Your task to perform on an android device: toggle notification dots Image 0: 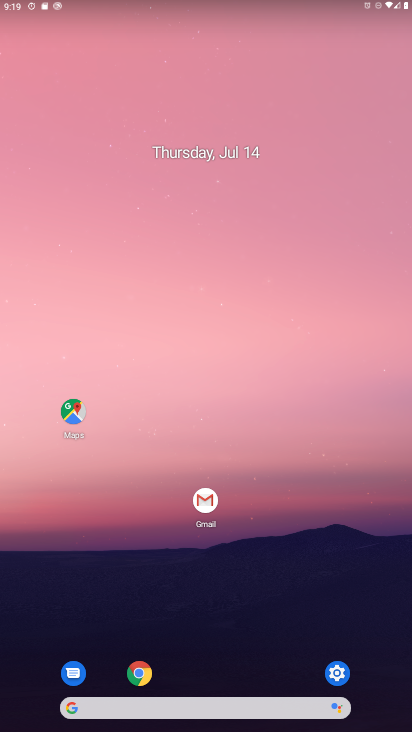
Step 0: press home button
Your task to perform on an android device: toggle notification dots Image 1: 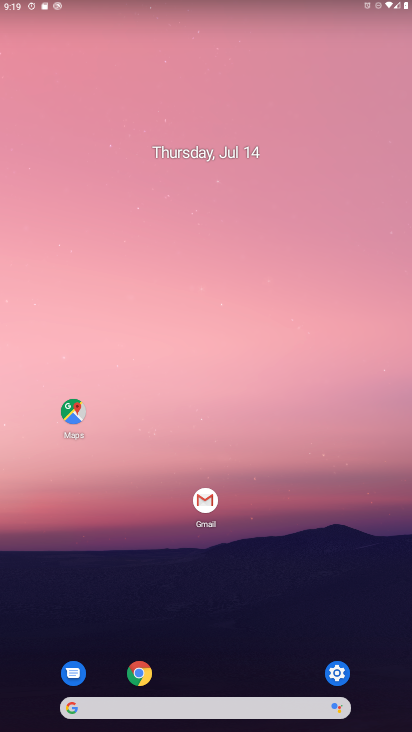
Step 1: click (337, 676)
Your task to perform on an android device: toggle notification dots Image 2: 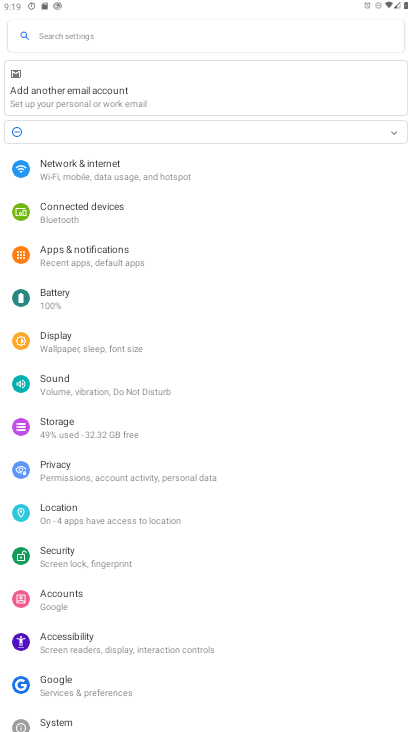
Step 2: click (99, 42)
Your task to perform on an android device: toggle notification dots Image 3: 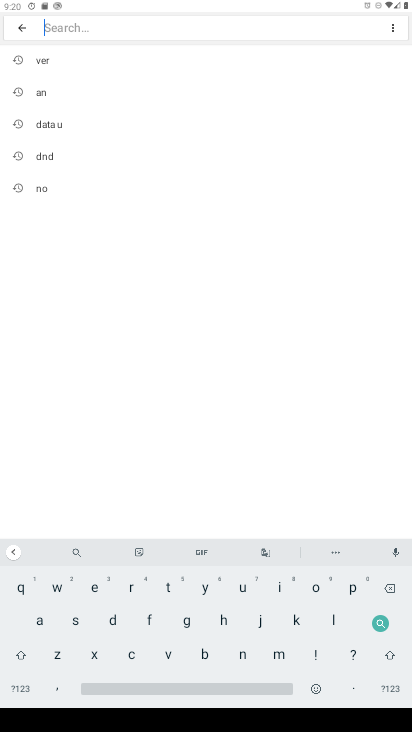
Step 3: click (109, 626)
Your task to perform on an android device: toggle notification dots Image 4: 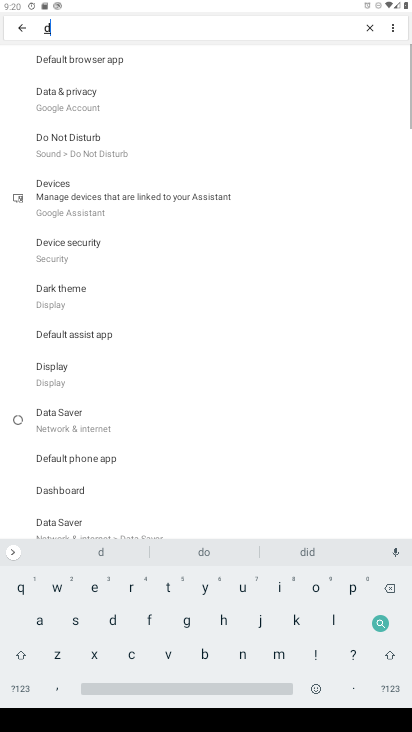
Step 4: click (317, 586)
Your task to perform on an android device: toggle notification dots Image 5: 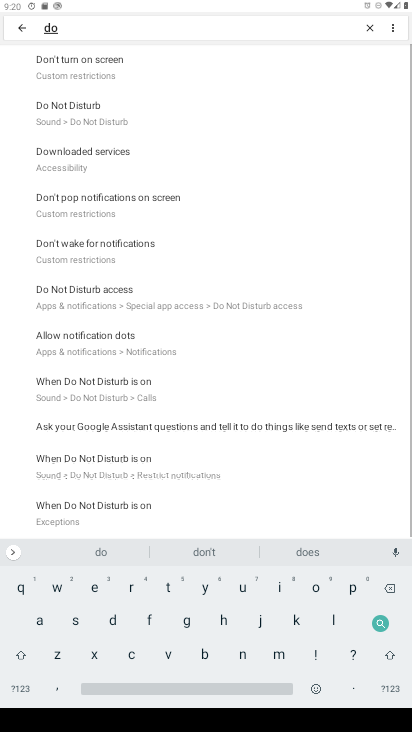
Step 5: click (169, 586)
Your task to perform on an android device: toggle notification dots Image 6: 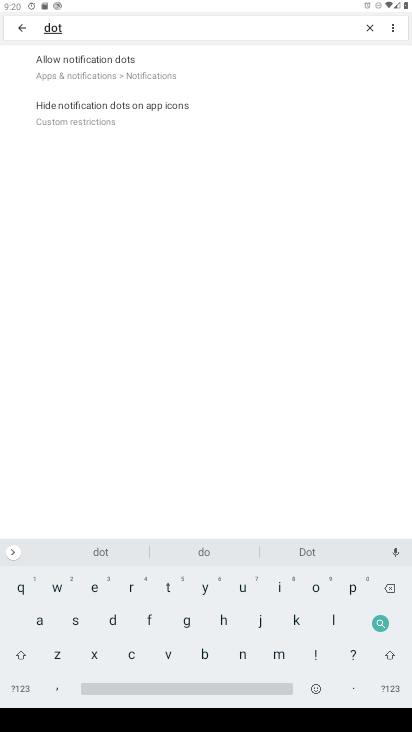
Step 6: click (111, 69)
Your task to perform on an android device: toggle notification dots Image 7: 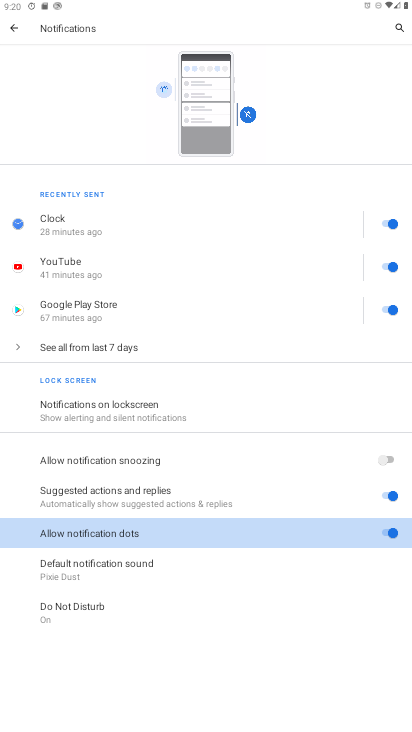
Step 7: click (229, 536)
Your task to perform on an android device: toggle notification dots Image 8: 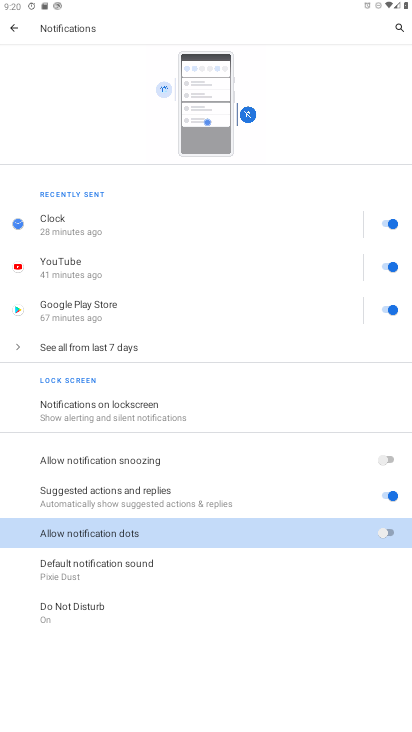
Step 8: click (229, 536)
Your task to perform on an android device: toggle notification dots Image 9: 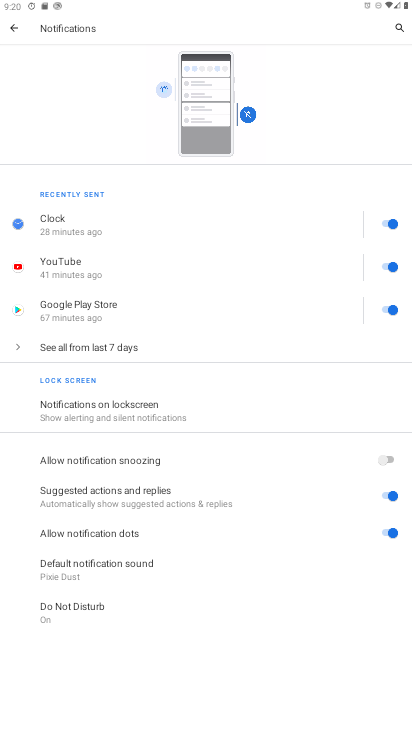
Step 9: task complete